Your task to perform on an android device: Go to calendar. Show me events next week Image 0: 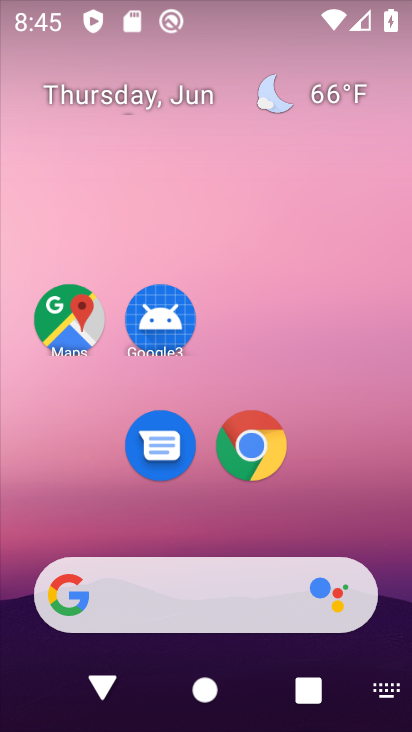
Step 0: click (145, 100)
Your task to perform on an android device: Go to calendar. Show me events next week Image 1: 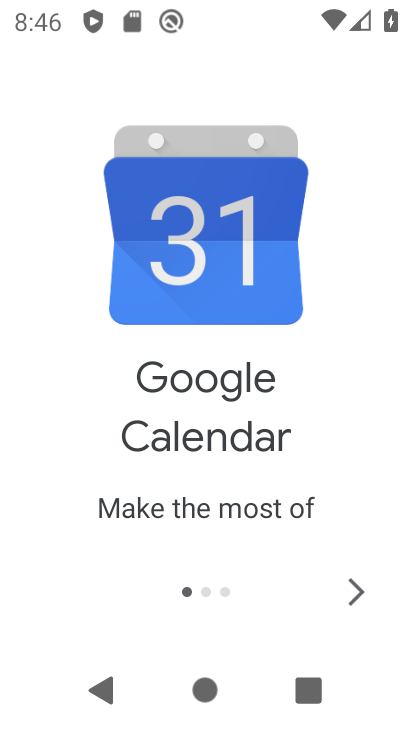
Step 1: click (363, 590)
Your task to perform on an android device: Go to calendar. Show me events next week Image 2: 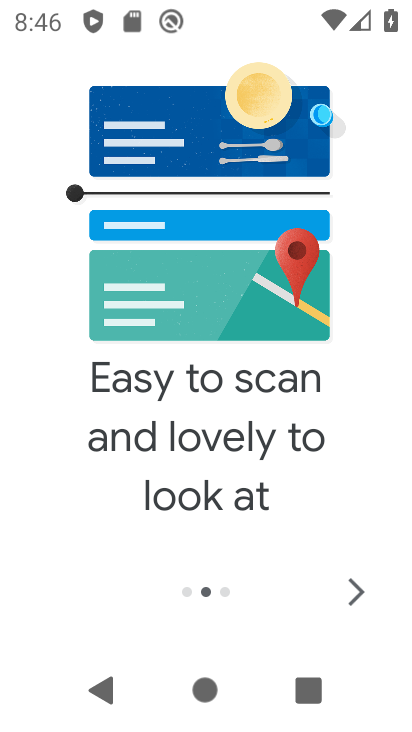
Step 2: click (363, 590)
Your task to perform on an android device: Go to calendar. Show me events next week Image 3: 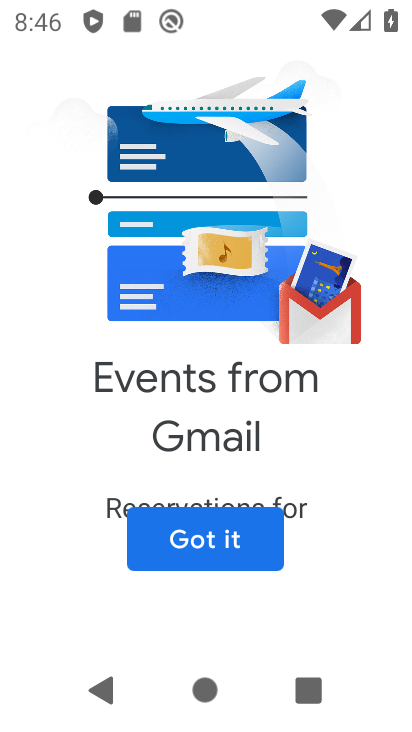
Step 3: click (264, 548)
Your task to perform on an android device: Go to calendar. Show me events next week Image 4: 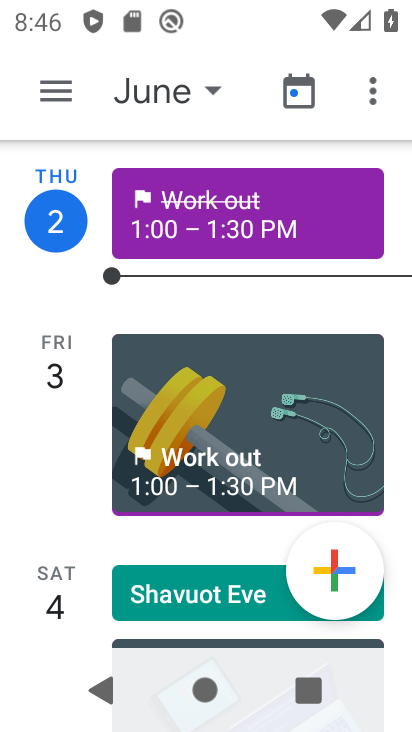
Step 4: click (60, 93)
Your task to perform on an android device: Go to calendar. Show me events next week Image 5: 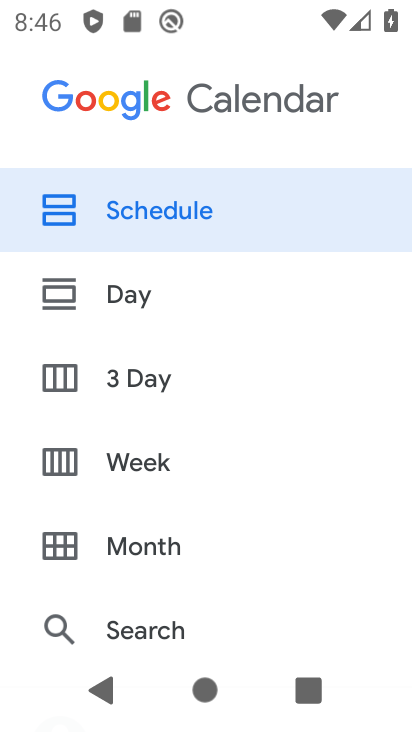
Step 5: drag from (175, 530) to (172, 196)
Your task to perform on an android device: Go to calendar. Show me events next week Image 6: 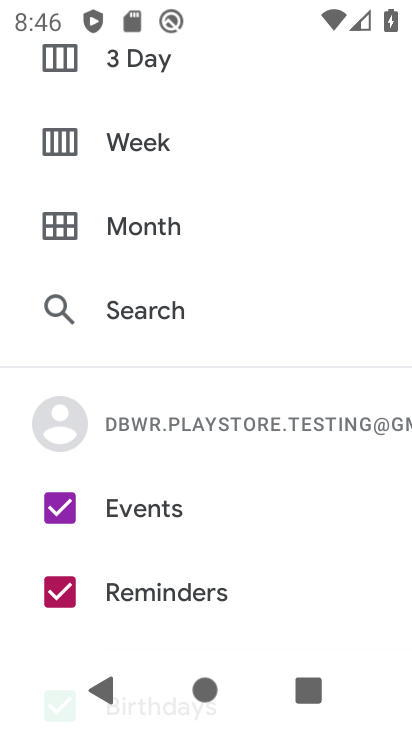
Step 6: drag from (208, 569) to (213, 260)
Your task to perform on an android device: Go to calendar. Show me events next week Image 7: 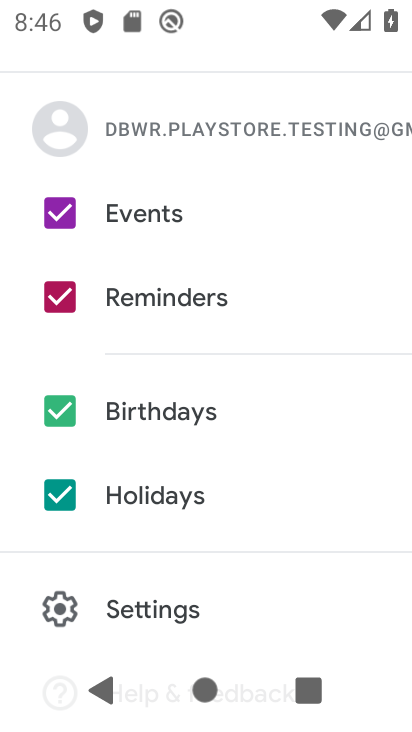
Step 7: click (61, 501)
Your task to perform on an android device: Go to calendar. Show me events next week Image 8: 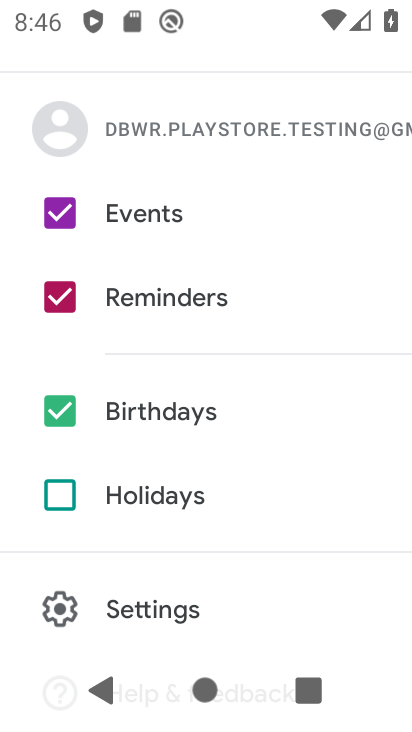
Step 8: click (61, 410)
Your task to perform on an android device: Go to calendar. Show me events next week Image 9: 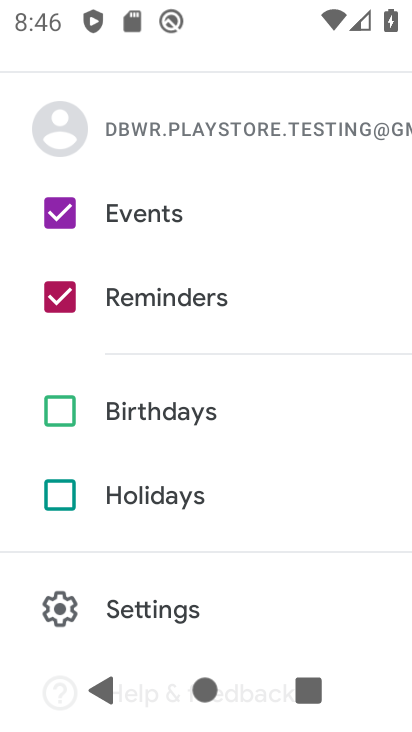
Step 9: click (62, 286)
Your task to perform on an android device: Go to calendar. Show me events next week Image 10: 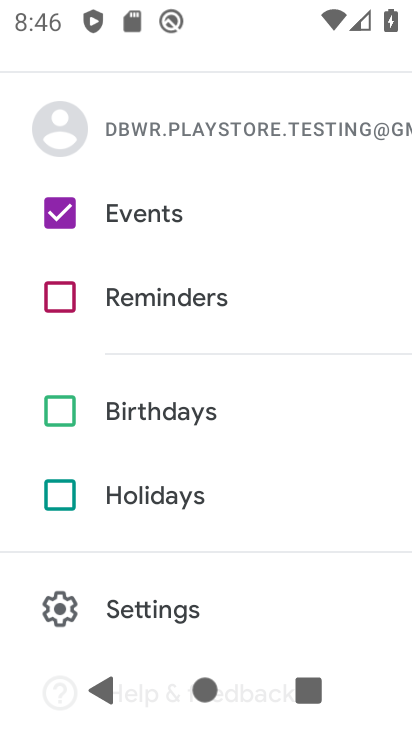
Step 10: drag from (262, 169) to (260, 538)
Your task to perform on an android device: Go to calendar. Show me events next week Image 11: 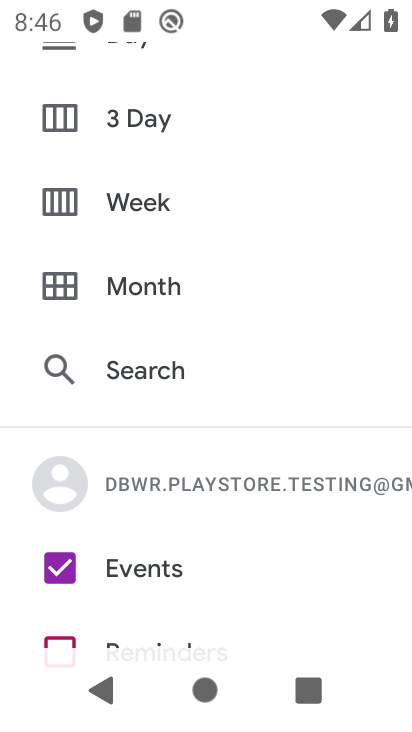
Step 11: click (155, 201)
Your task to perform on an android device: Go to calendar. Show me events next week Image 12: 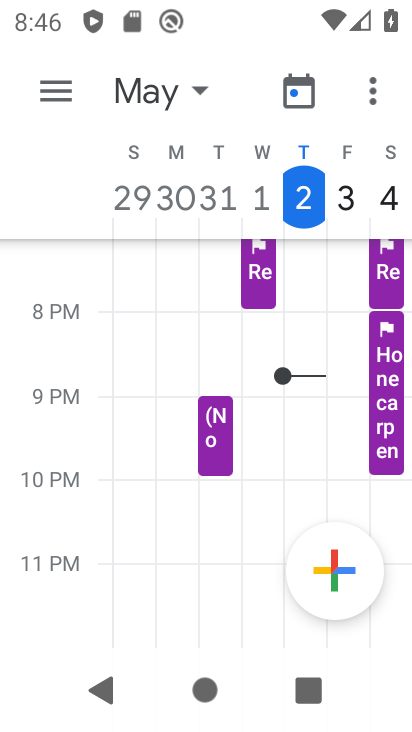
Step 12: click (196, 91)
Your task to perform on an android device: Go to calendar. Show me events next week Image 13: 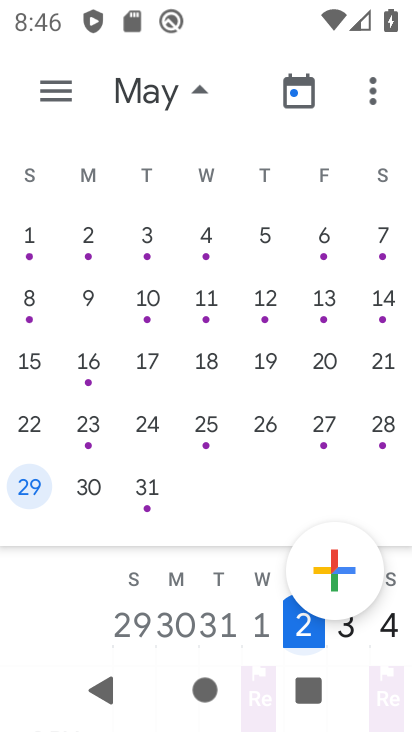
Step 13: drag from (317, 447) to (24, 428)
Your task to perform on an android device: Go to calendar. Show me events next week Image 14: 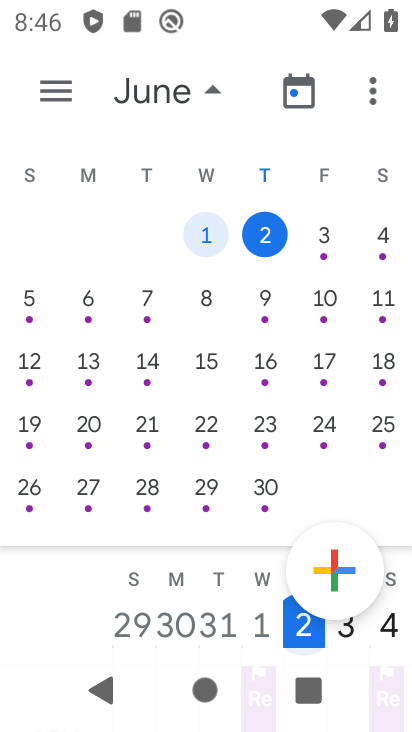
Step 14: click (207, 293)
Your task to perform on an android device: Go to calendar. Show me events next week Image 15: 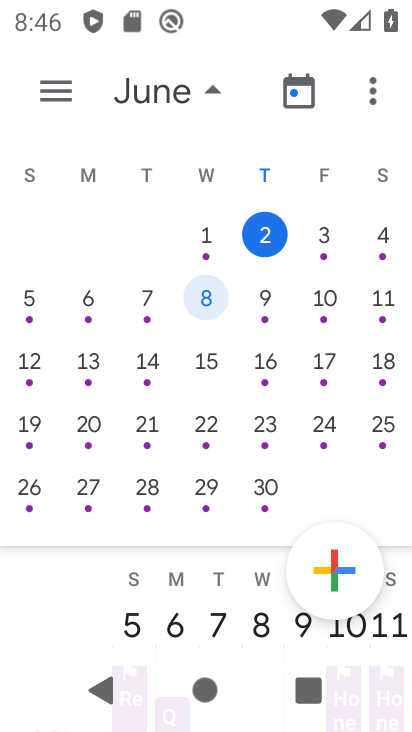
Step 15: task complete